Your task to perform on an android device: delete the emails in spam in the gmail app Image 0: 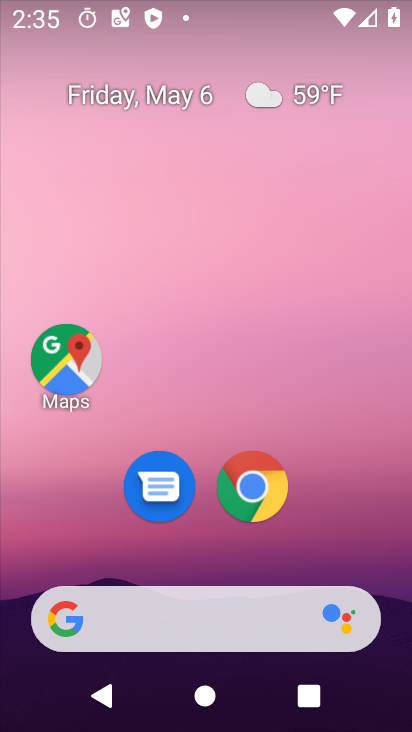
Step 0: drag from (333, 524) to (266, 34)
Your task to perform on an android device: delete the emails in spam in the gmail app Image 1: 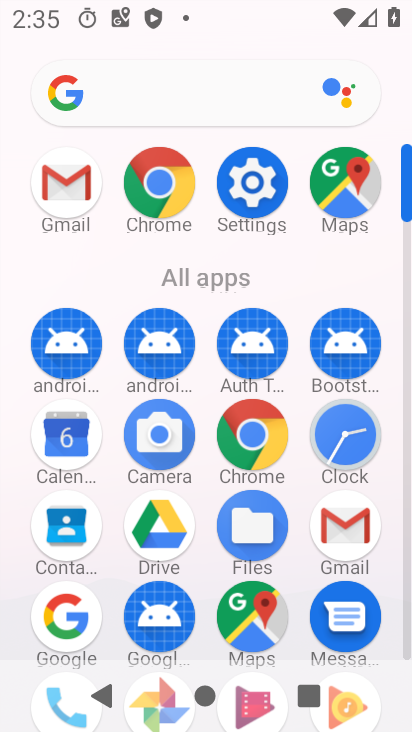
Step 1: click (64, 186)
Your task to perform on an android device: delete the emails in spam in the gmail app Image 2: 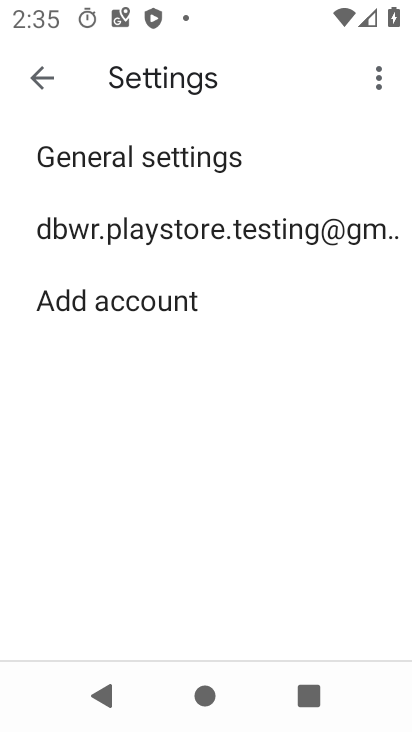
Step 2: click (37, 76)
Your task to perform on an android device: delete the emails in spam in the gmail app Image 3: 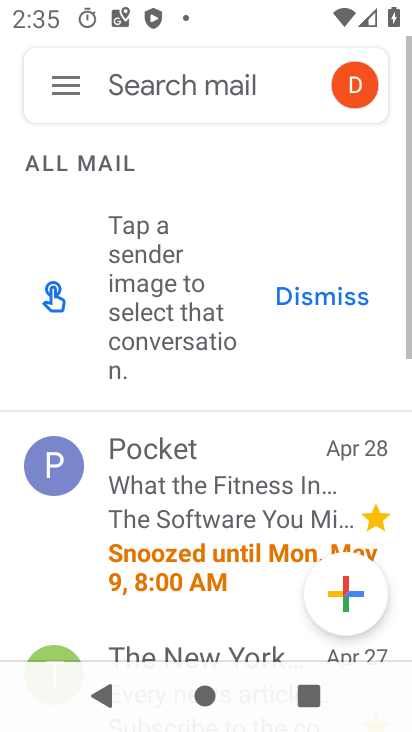
Step 3: click (62, 74)
Your task to perform on an android device: delete the emails in spam in the gmail app Image 4: 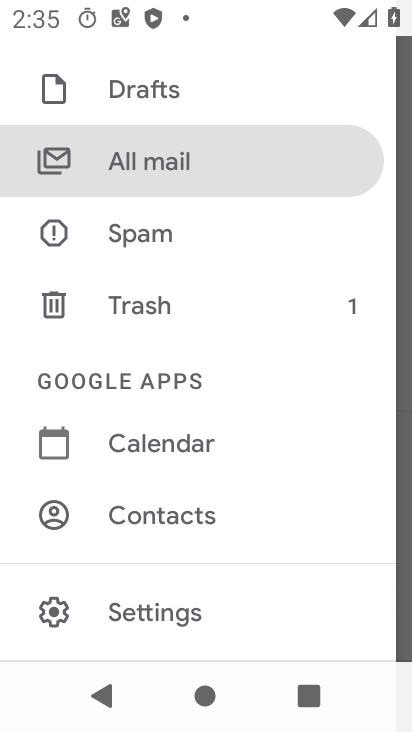
Step 4: click (131, 225)
Your task to perform on an android device: delete the emails in spam in the gmail app Image 5: 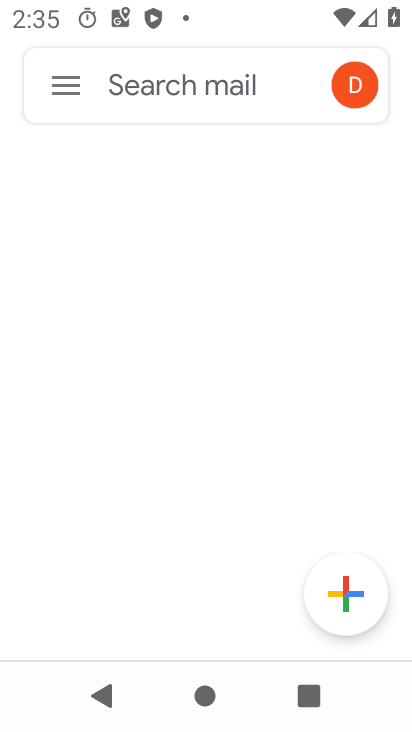
Step 5: click (131, 225)
Your task to perform on an android device: delete the emails in spam in the gmail app Image 6: 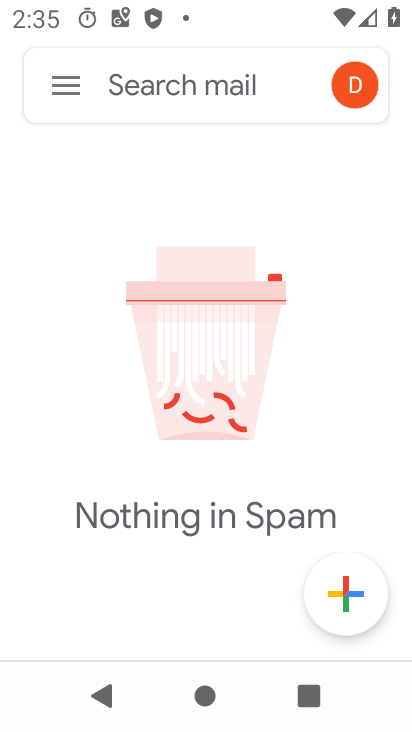
Step 6: task complete